Your task to perform on an android device: Clear the cart on amazon. Search for "razer blade" on amazon, select the first entry, add it to the cart, then select checkout. Image 0: 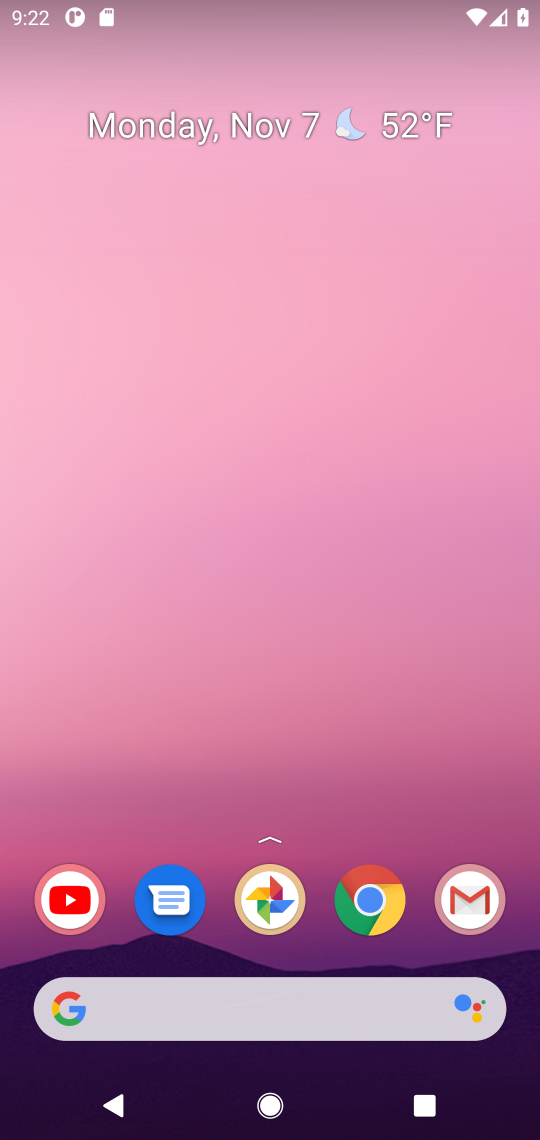
Step 0: click (301, 999)
Your task to perform on an android device: Clear the cart on amazon. Search for "razer blade" on amazon, select the first entry, add it to the cart, then select checkout. Image 1: 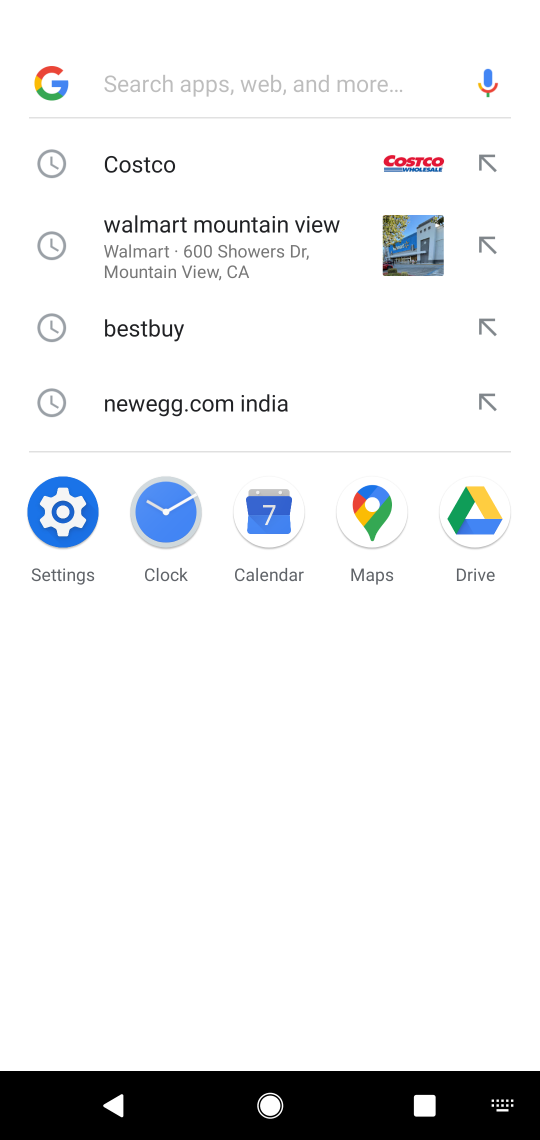
Step 1: task complete